Your task to perform on an android device: toggle notifications settings in the gmail app Image 0: 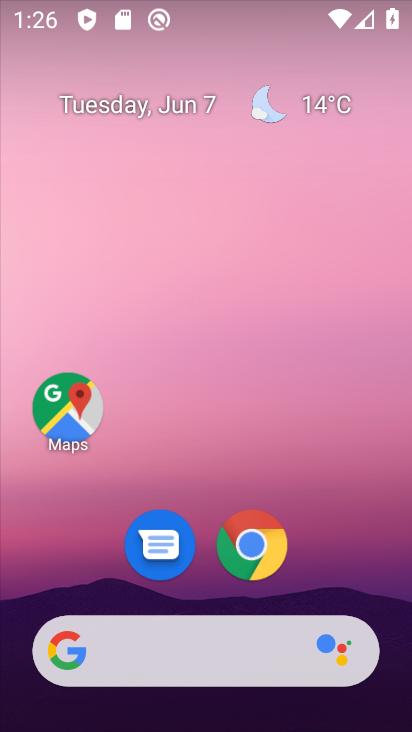
Step 0: drag from (322, 474) to (43, 18)
Your task to perform on an android device: toggle notifications settings in the gmail app Image 1: 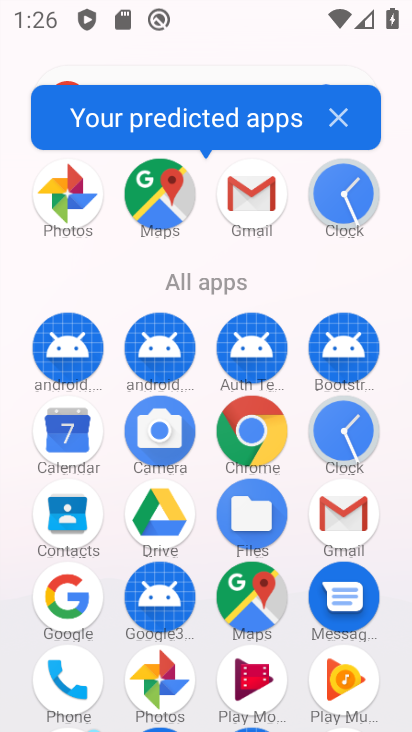
Step 1: click (267, 198)
Your task to perform on an android device: toggle notifications settings in the gmail app Image 2: 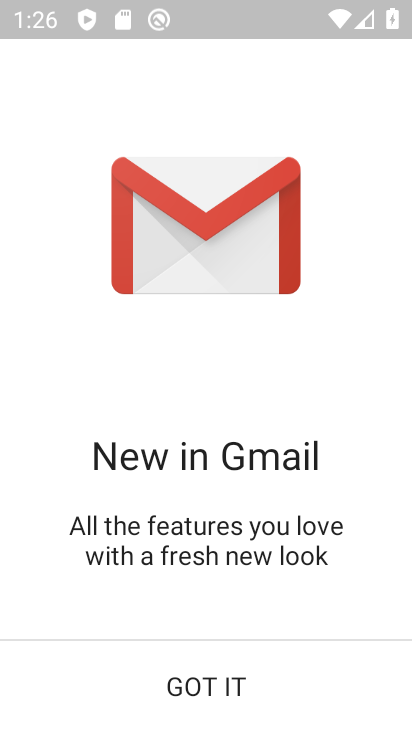
Step 2: click (269, 692)
Your task to perform on an android device: toggle notifications settings in the gmail app Image 3: 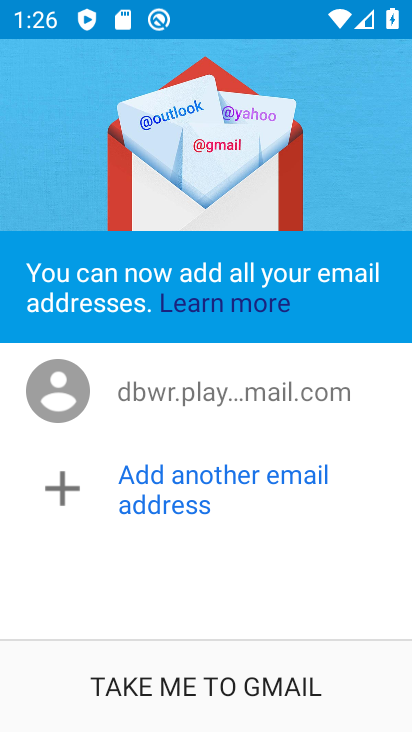
Step 3: click (316, 692)
Your task to perform on an android device: toggle notifications settings in the gmail app Image 4: 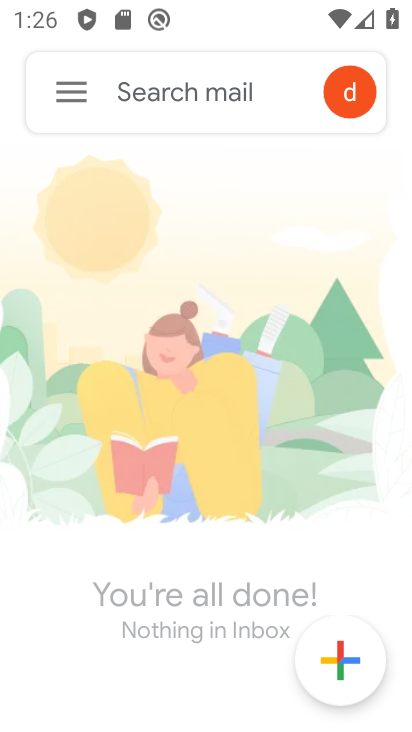
Step 4: click (77, 94)
Your task to perform on an android device: toggle notifications settings in the gmail app Image 5: 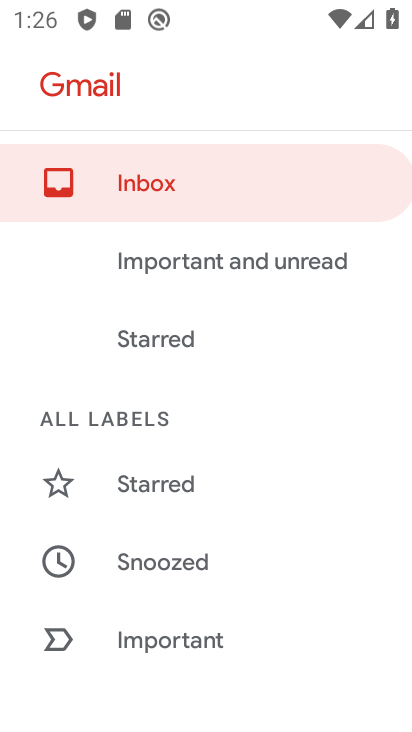
Step 5: drag from (256, 297) to (252, 18)
Your task to perform on an android device: toggle notifications settings in the gmail app Image 6: 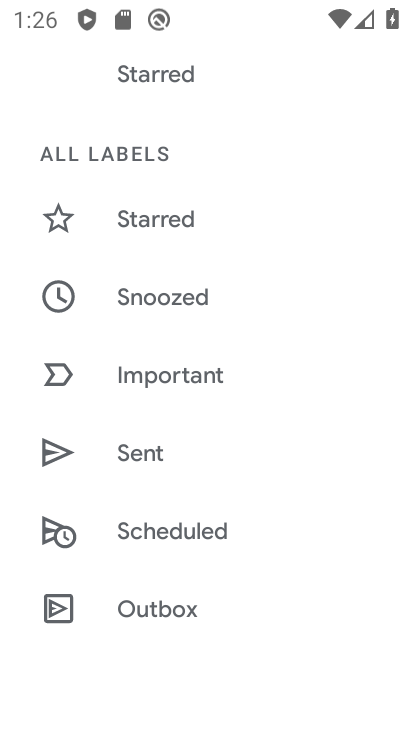
Step 6: drag from (248, 525) to (222, 48)
Your task to perform on an android device: toggle notifications settings in the gmail app Image 7: 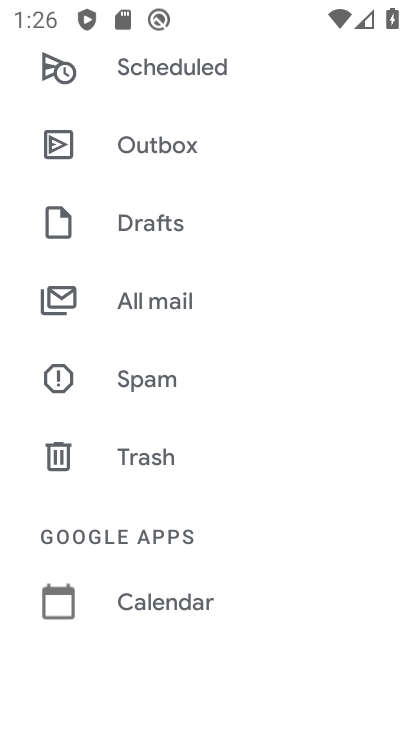
Step 7: drag from (229, 588) to (219, 204)
Your task to perform on an android device: toggle notifications settings in the gmail app Image 8: 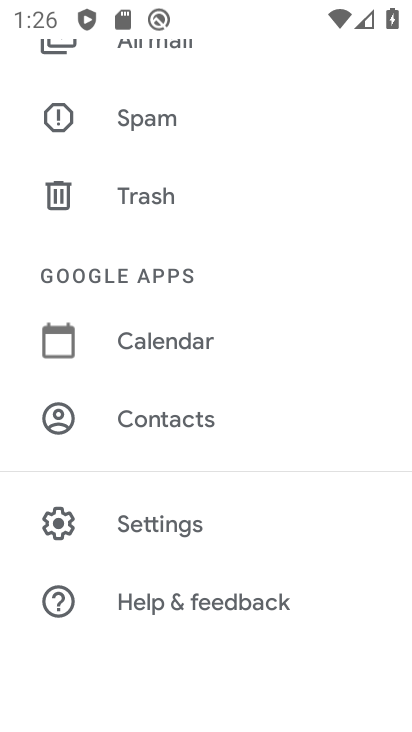
Step 8: click (173, 525)
Your task to perform on an android device: toggle notifications settings in the gmail app Image 9: 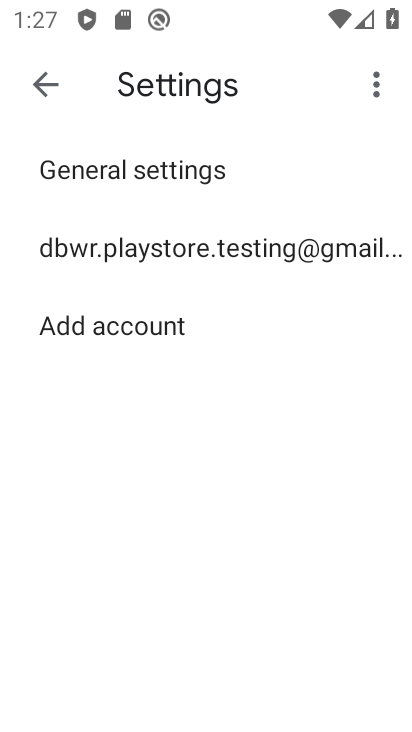
Step 9: click (198, 239)
Your task to perform on an android device: toggle notifications settings in the gmail app Image 10: 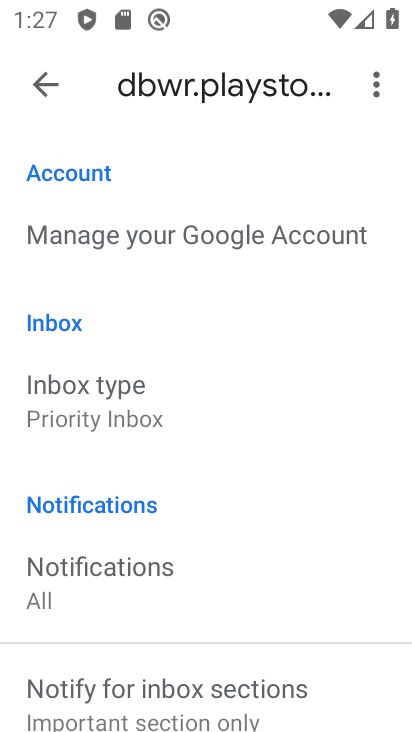
Step 10: click (227, 582)
Your task to perform on an android device: toggle notifications settings in the gmail app Image 11: 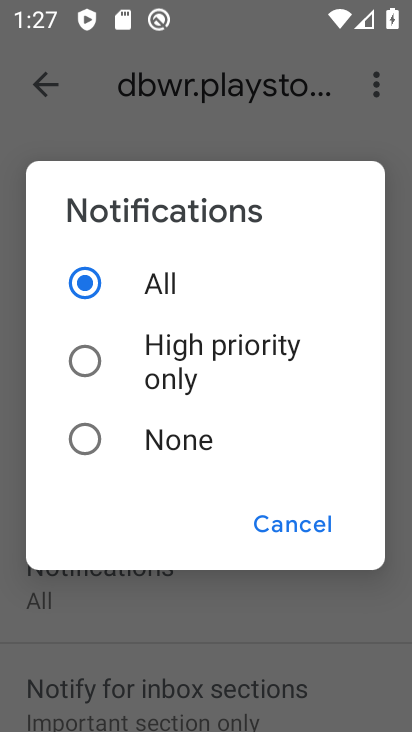
Step 11: click (176, 443)
Your task to perform on an android device: toggle notifications settings in the gmail app Image 12: 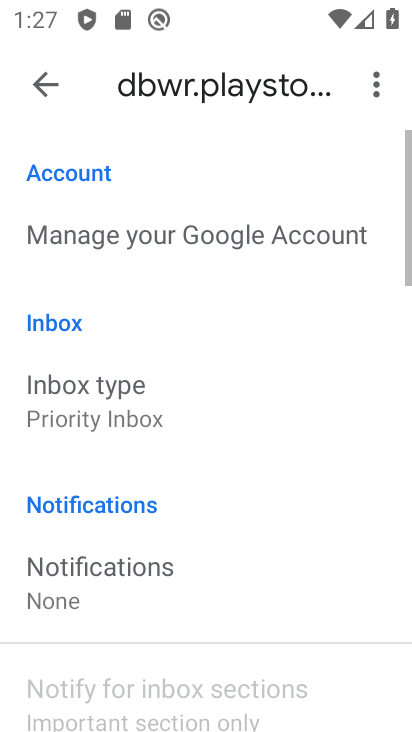
Step 12: task complete